Your task to perform on an android device: change the clock display to analog Image 0: 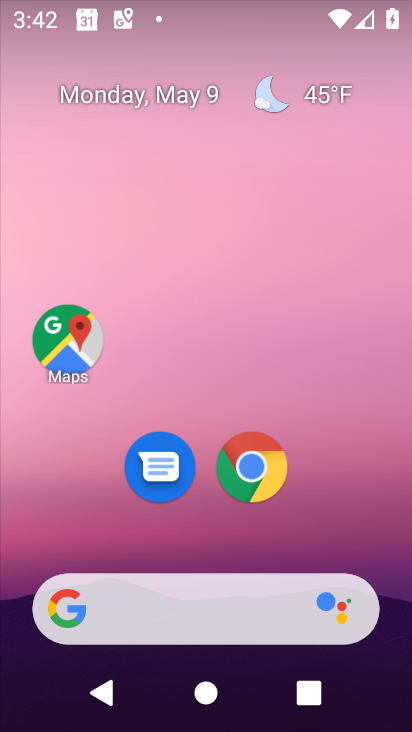
Step 0: drag from (291, 509) to (349, 91)
Your task to perform on an android device: change the clock display to analog Image 1: 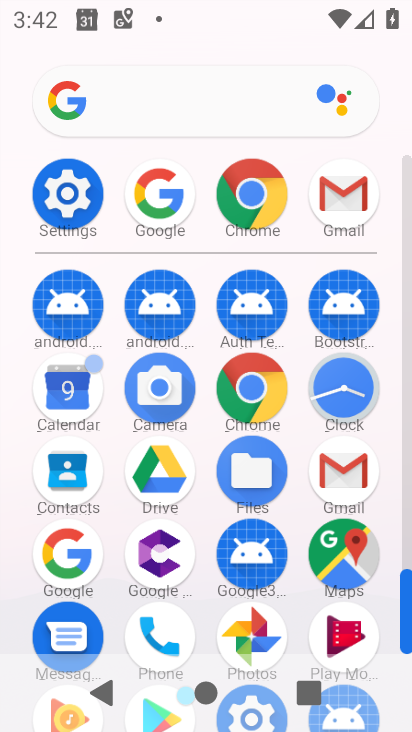
Step 1: click (353, 384)
Your task to perform on an android device: change the clock display to analog Image 2: 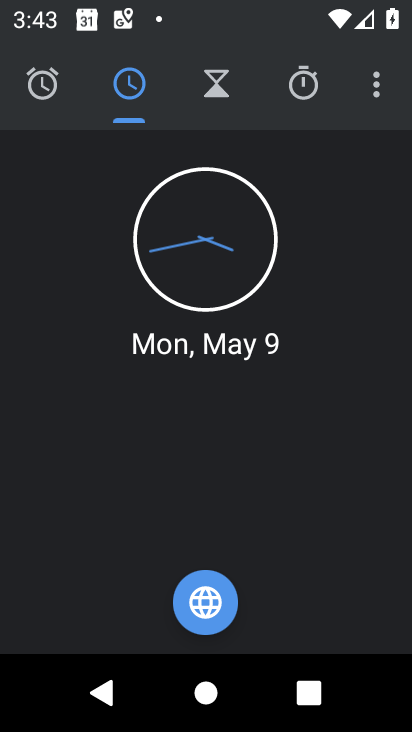
Step 2: click (375, 93)
Your task to perform on an android device: change the clock display to analog Image 3: 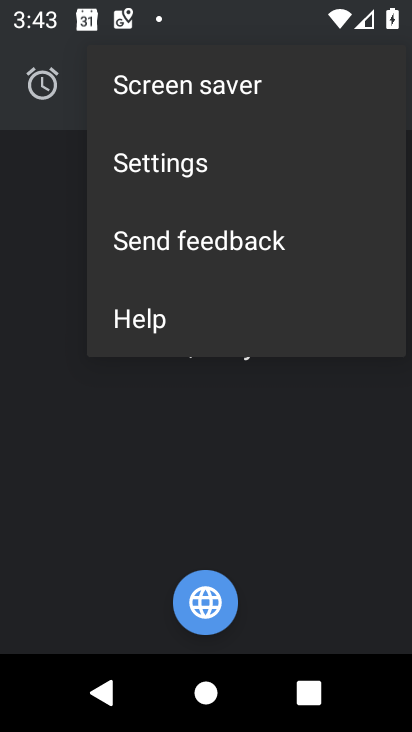
Step 3: click (266, 156)
Your task to perform on an android device: change the clock display to analog Image 4: 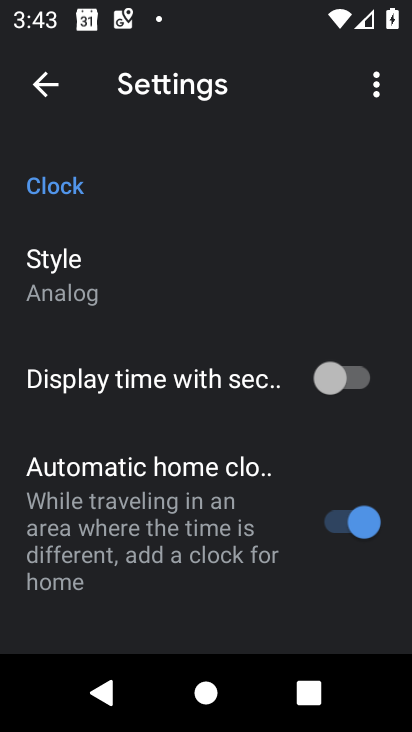
Step 4: task complete